Your task to perform on an android device: set an alarm Image 0: 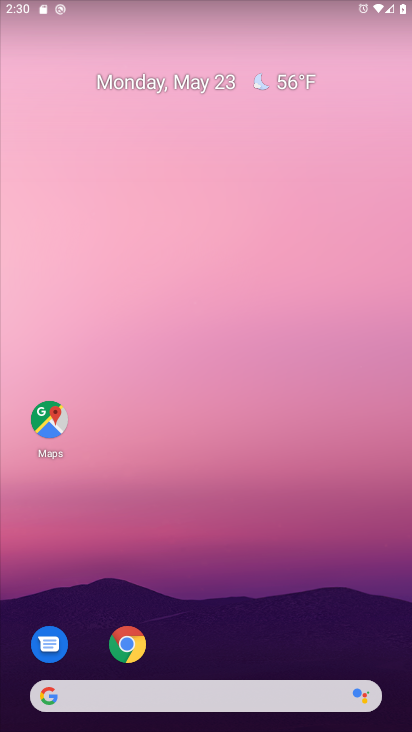
Step 0: click (140, 259)
Your task to perform on an android device: set an alarm Image 1: 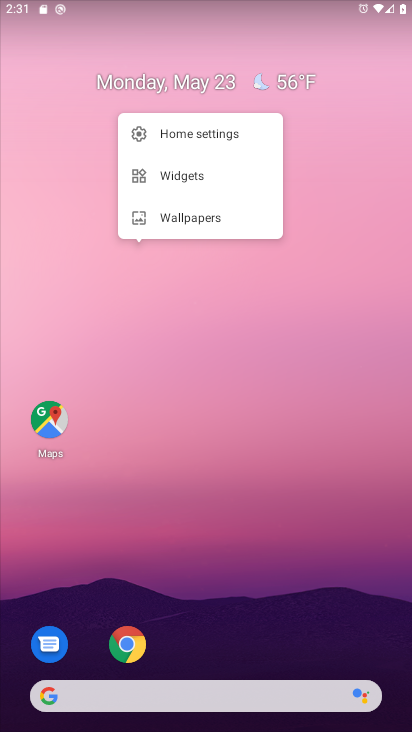
Step 1: drag from (214, 583) to (203, 89)
Your task to perform on an android device: set an alarm Image 2: 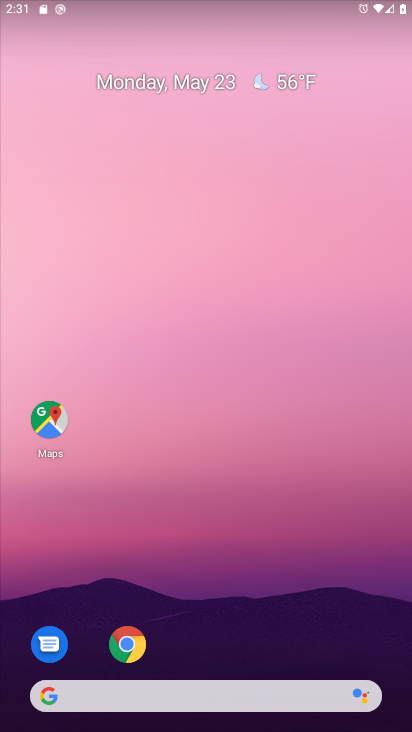
Step 2: drag from (198, 610) to (215, 106)
Your task to perform on an android device: set an alarm Image 3: 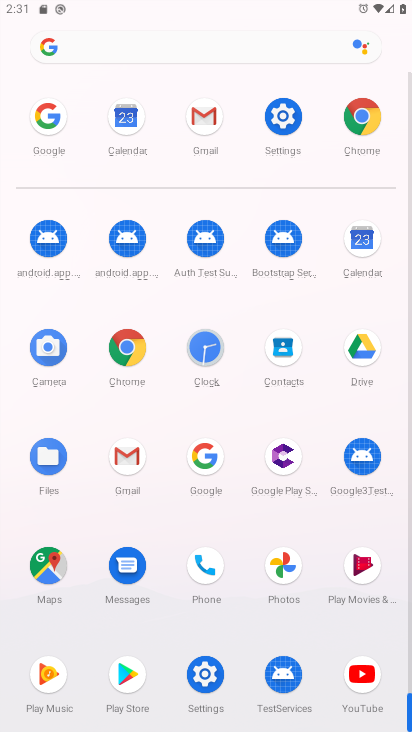
Step 3: click (224, 368)
Your task to perform on an android device: set an alarm Image 4: 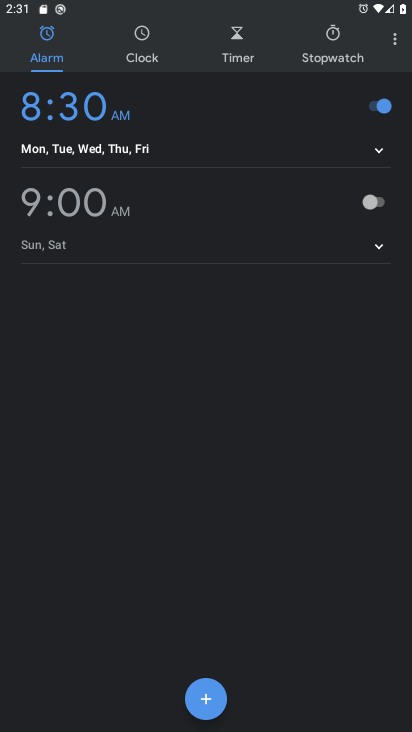
Step 4: click (373, 204)
Your task to perform on an android device: set an alarm Image 5: 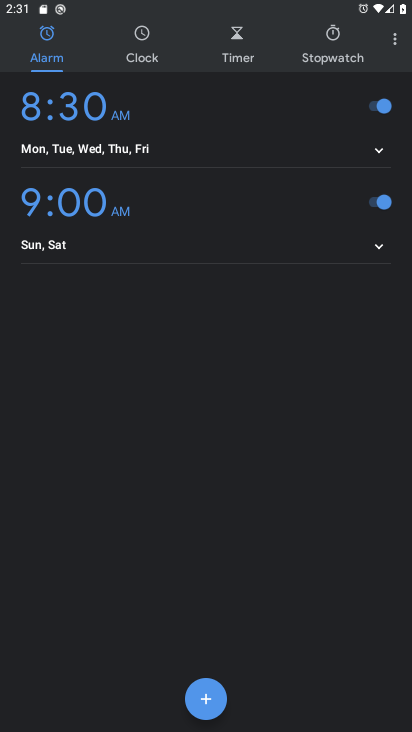
Step 5: task complete